Your task to perform on an android device: Go to Wikipedia Image 0: 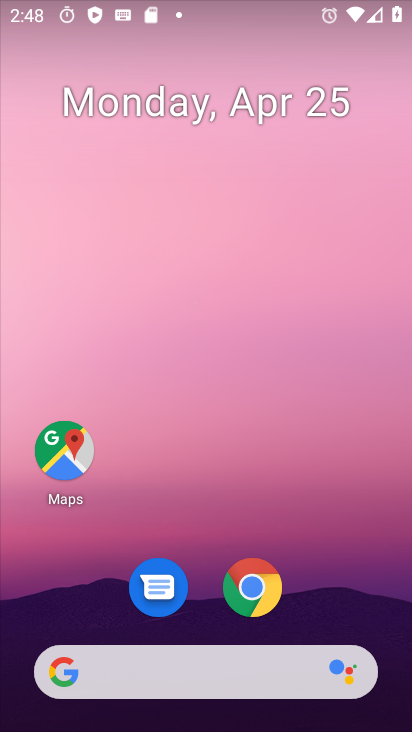
Step 0: drag from (327, 541) to (339, 72)
Your task to perform on an android device: Go to Wikipedia Image 1: 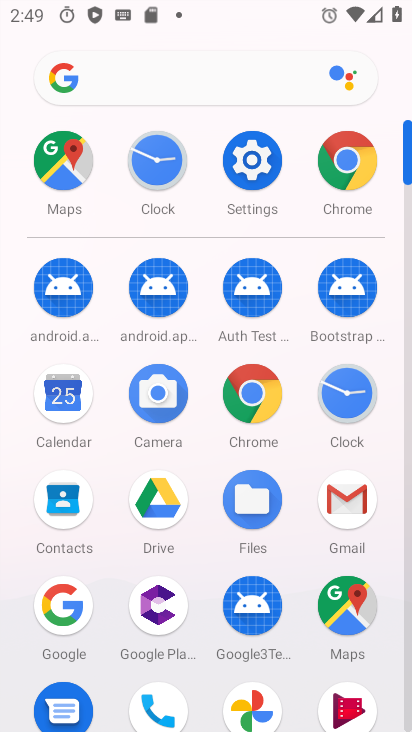
Step 1: click (246, 397)
Your task to perform on an android device: Go to Wikipedia Image 2: 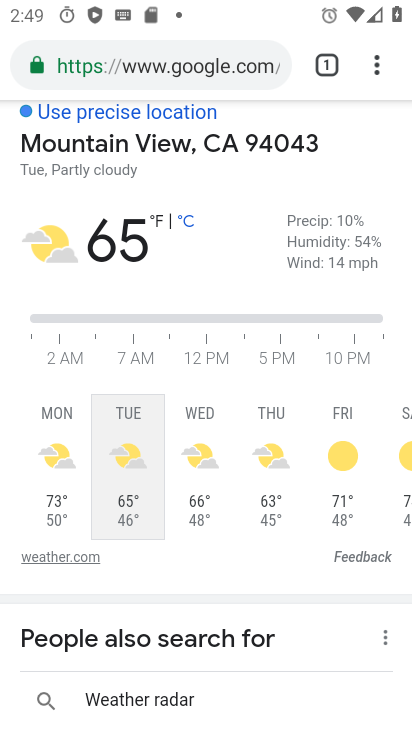
Step 2: click (254, 59)
Your task to perform on an android device: Go to Wikipedia Image 3: 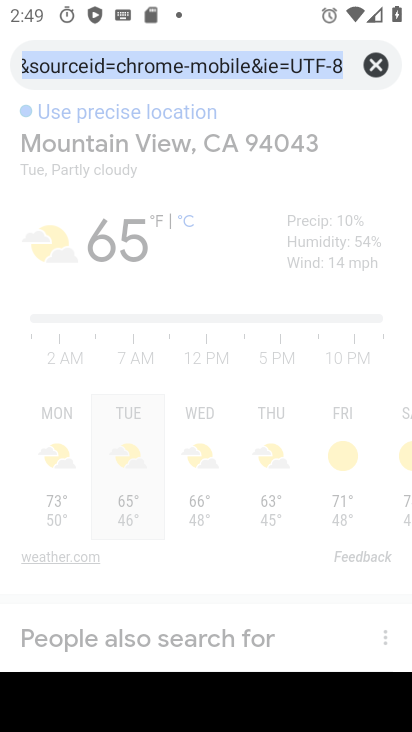
Step 3: type "wikipedia"
Your task to perform on an android device: Go to Wikipedia Image 4: 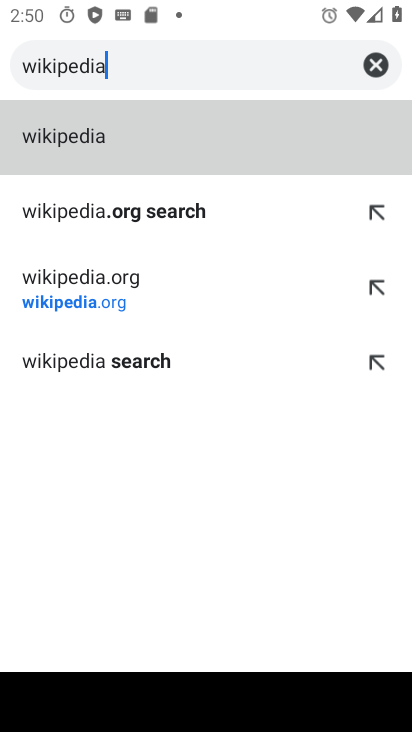
Step 4: click (51, 154)
Your task to perform on an android device: Go to Wikipedia Image 5: 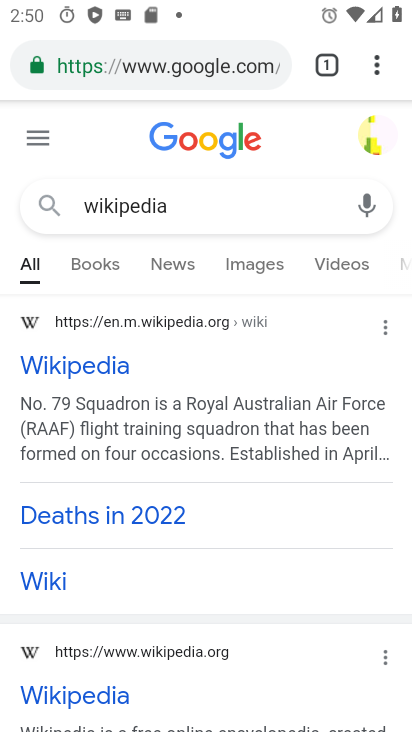
Step 5: click (85, 367)
Your task to perform on an android device: Go to Wikipedia Image 6: 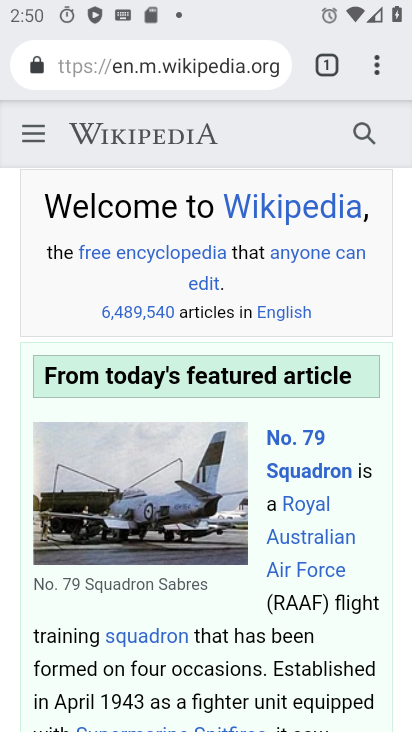
Step 6: task complete